Your task to perform on an android device: change your default location settings in chrome Image 0: 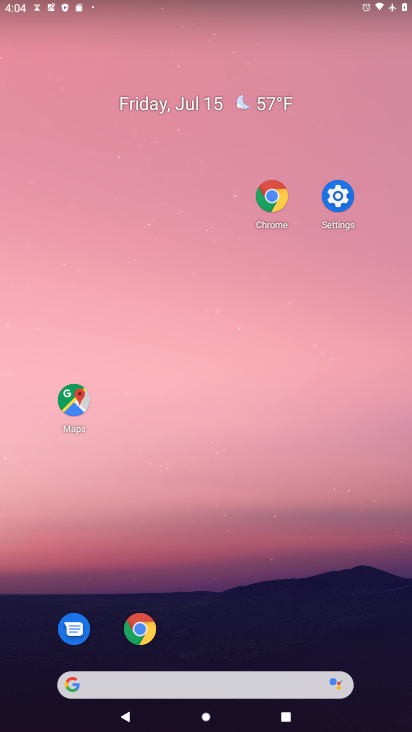
Step 0: click (230, 17)
Your task to perform on an android device: change your default location settings in chrome Image 1: 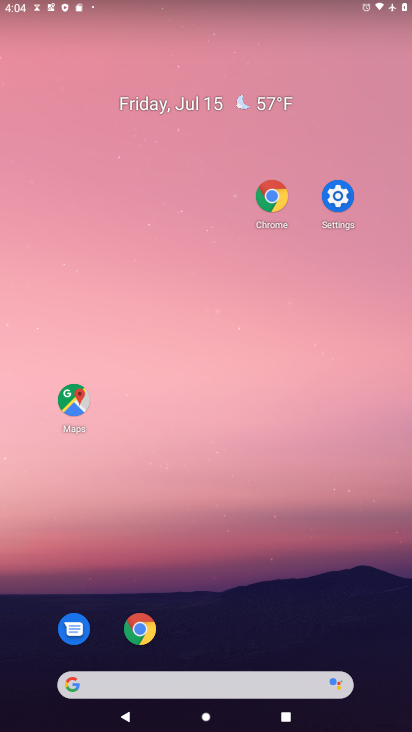
Step 1: click (266, 74)
Your task to perform on an android device: change your default location settings in chrome Image 2: 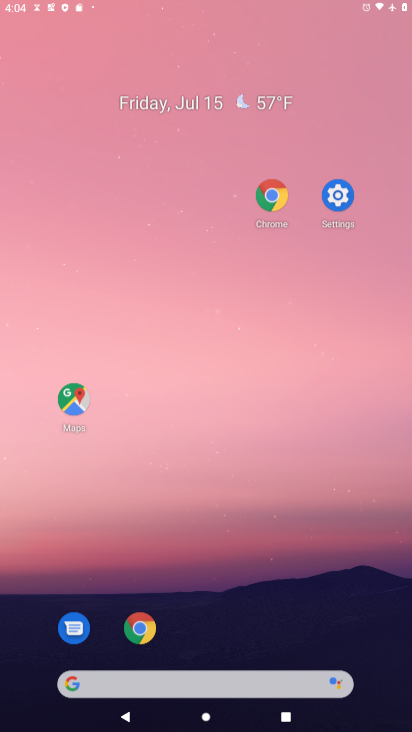
Step 2: click (144, 121)
Your task to perform on an android device: change your default location settings in chrome Image 3: 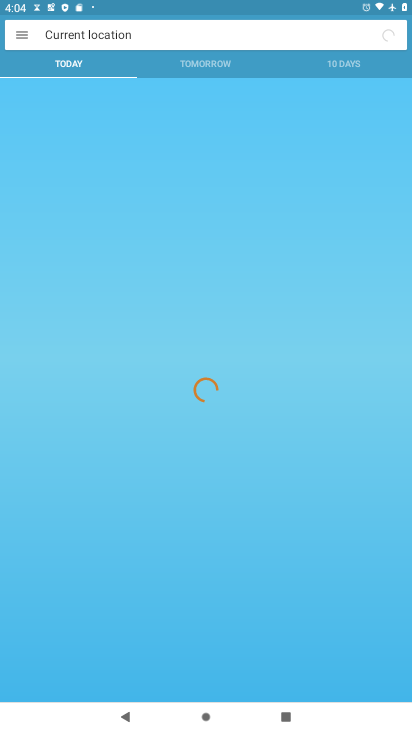
Step 3: drag from (139, 553) to (409, 118)
Your task to perform on an android device: change your default location settings in chrome Image 4: 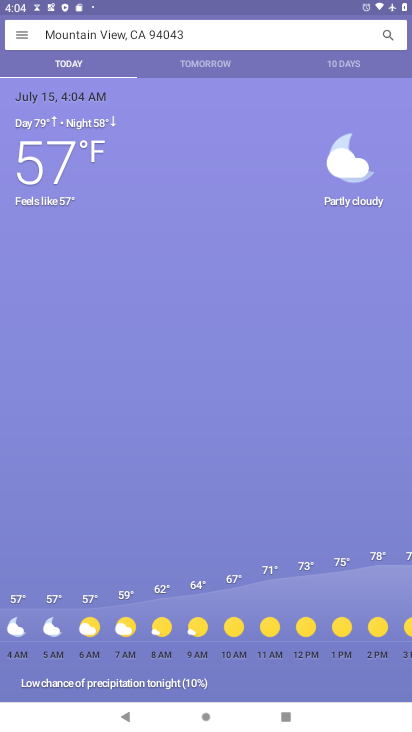
Step 4: drag from (249, 455) to (218, 32)
Your task to perform on an android device: change your default location settings in chrome Image 5: 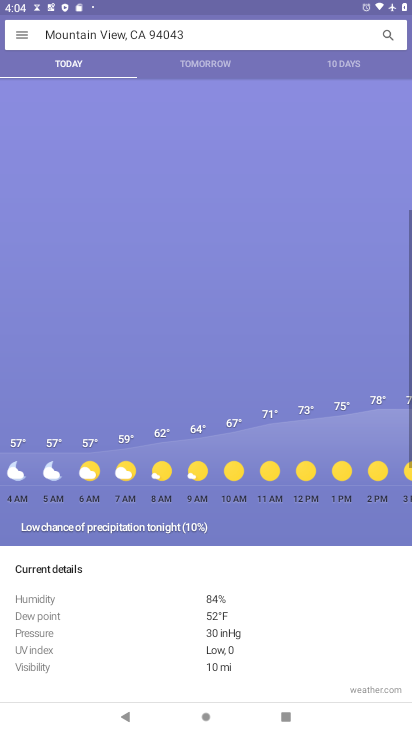
Step 5: drag from (255, 390) to (211, 28)
Your task to perform on an android device: change your default location settings in chrome Image 6: 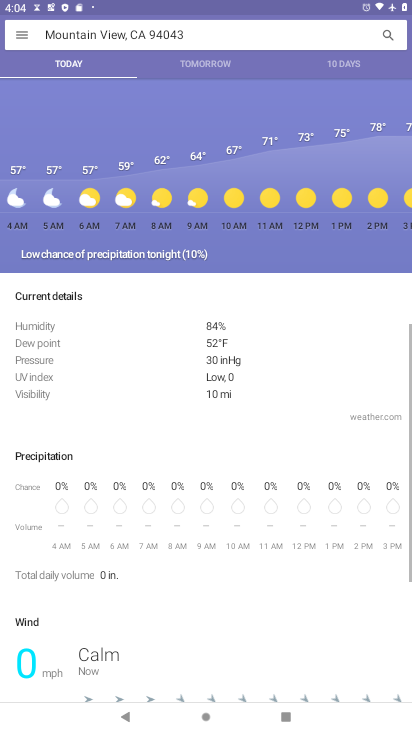
Step 6: drag from (246, 372) to (235, 37)
Your task to perform on an android device: change your default location settings in chrome Image 7: 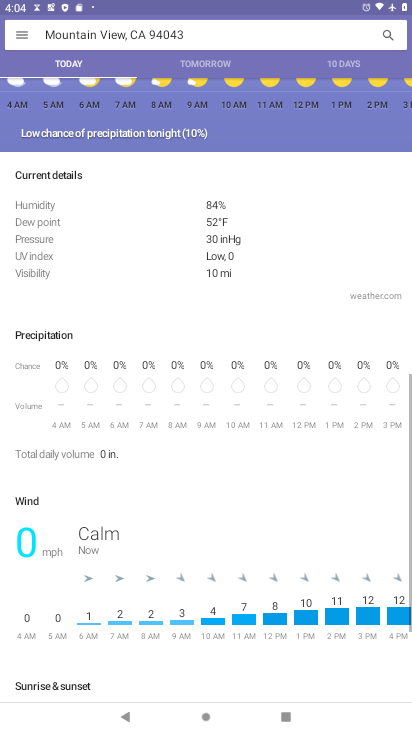
Step 7: drag from (242, 445) to (256, 157)
Your task to perform on an android device: change your default location settings in chrome Image 8: 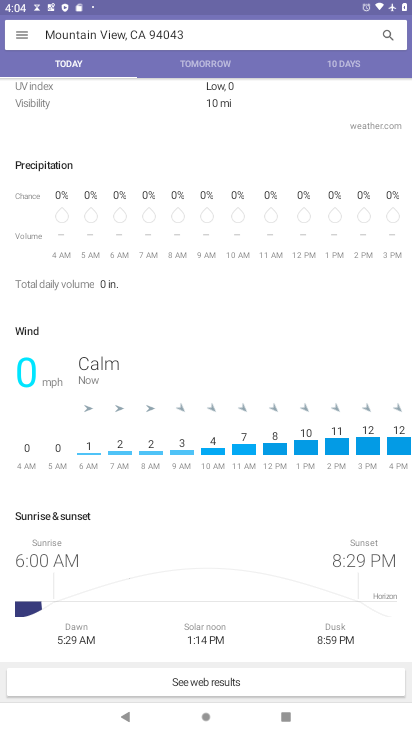
Step 8: press back button
Your task to perform on an android device: change your default location settings in chrome Image 9: 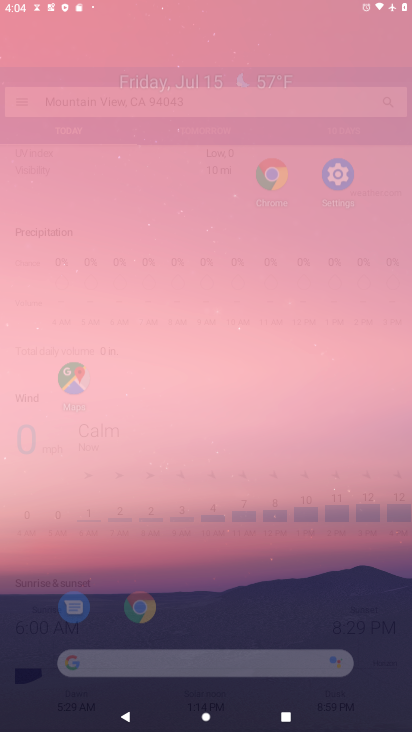
Step 9: drag from (174, 516) to (151, 56)
Your task to perform on an android device: change your default location settings in chrome Image 10: 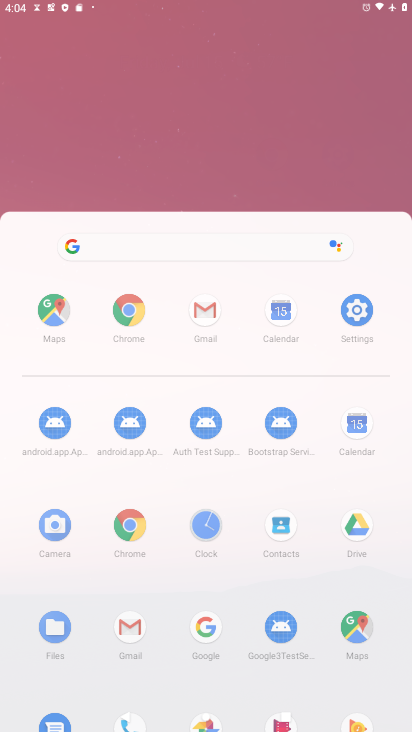
Step 10: drag from (222, 394) to (211, 155)
Your task to perform on an android device: change your default location settings in chrome Image 11: 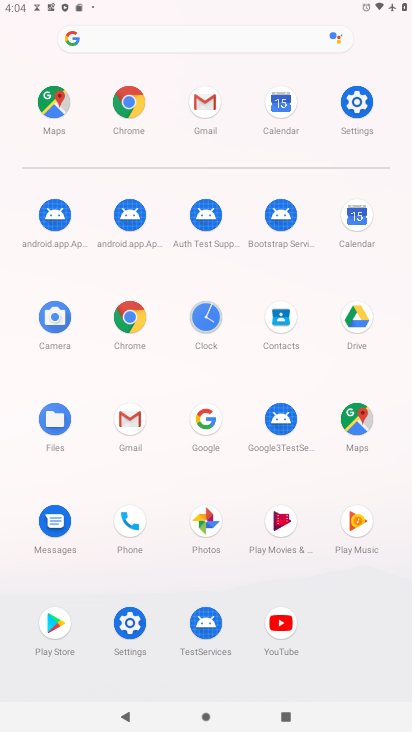
Step 11: click (134, 115)
Your task to perform on an android device: change your default location settings in chrome Image 12: 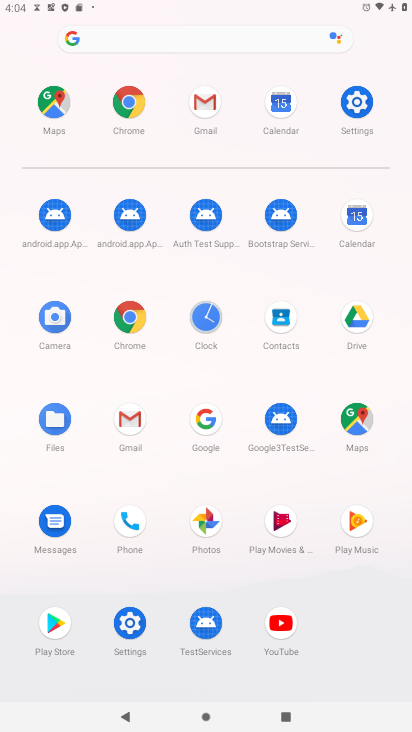
Step 12: click (115, 105)
Your task to perform on an android device: change your default location settings in chrome Image 13: 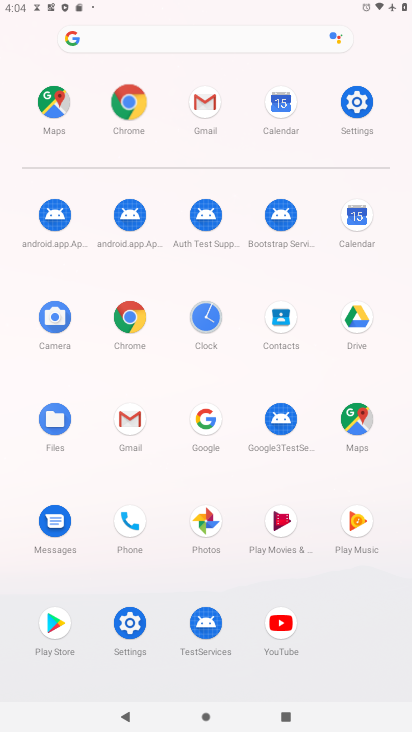
Step 13: click (131, 105)
Your task to perform on an android device: change your default location settings in chrome Image 14: 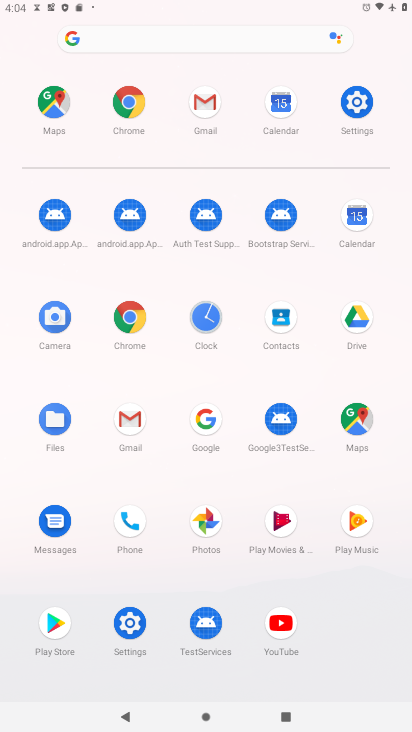
Step 14: click (134, 106)
Your task to perform on an android device: change your default location settings in chrome Image 15: 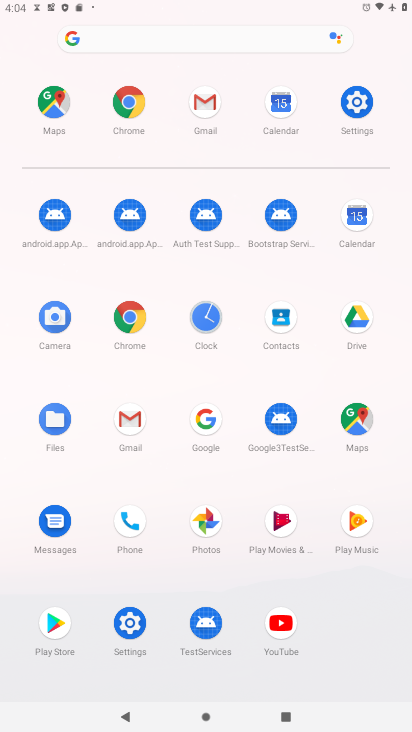
Step 15: click (134, 106)
Your task to perform on an android device: change your default location settings in chrome Image 16: 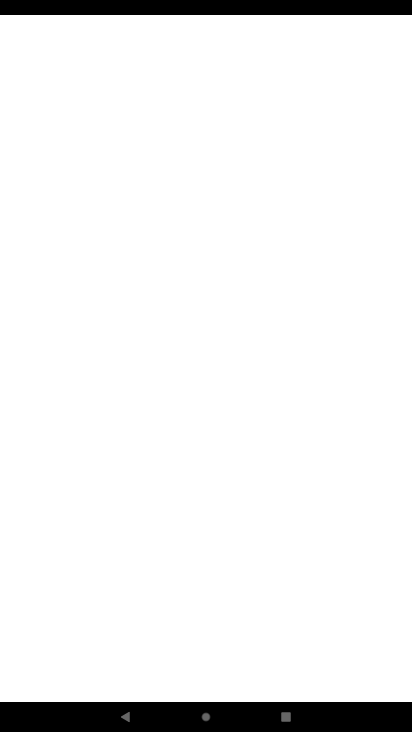
Step 16: click (135, 106)
Your task to perform on an android device: change your default location settings in chrome Image 17: 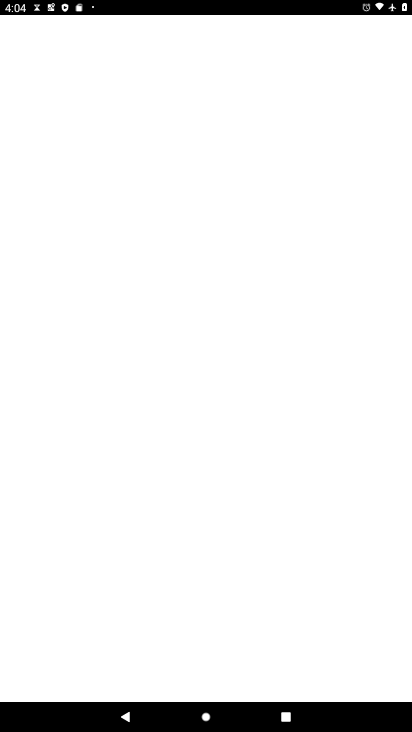
Step 17: click (135, 106)
Your task to perform on an android device: change your default location settings in chrome Image 18: 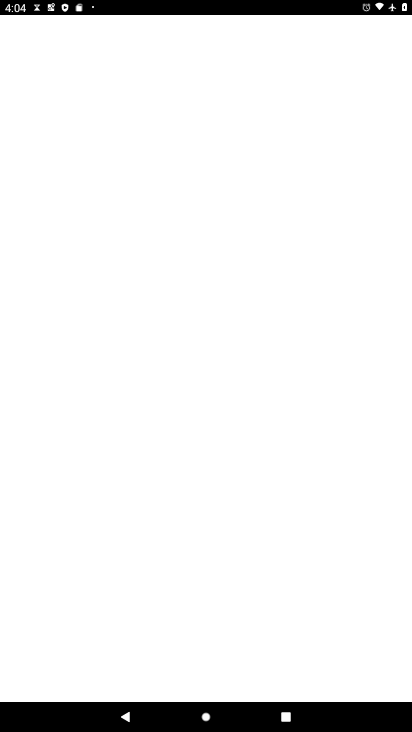
Step 18: click (136, 106)
Your task to perform on an android device: change your default location settings in chrome Image 19: 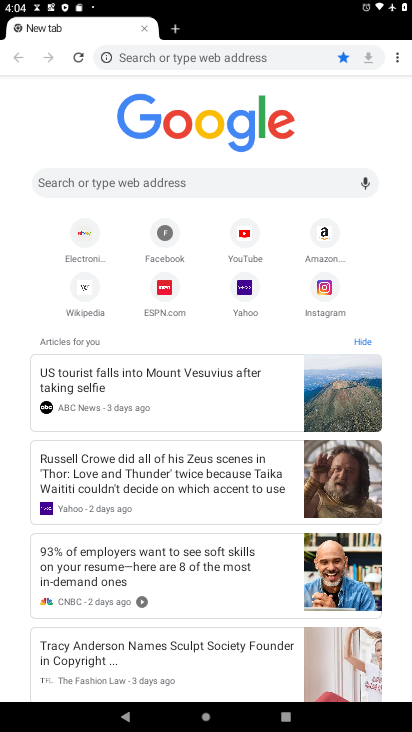
Step 19: drag from (396, 58) to (273, 265)
Your task to perform on an android device: change your default location settings in chrome Image 20: 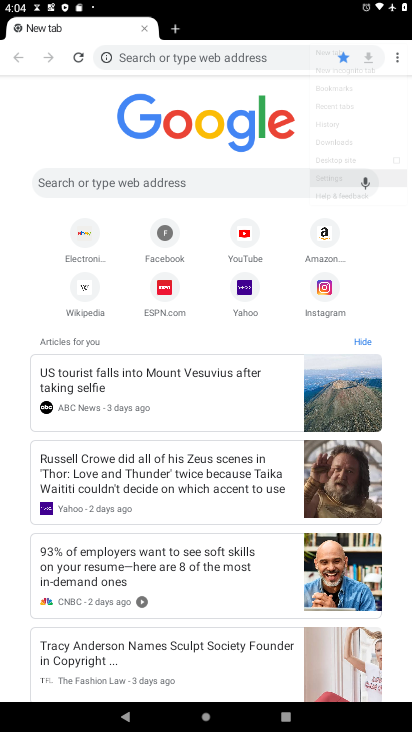
Step 20: click (276, 264)
Your task to perform on an android device: change your default location settings in chrome Image 21: 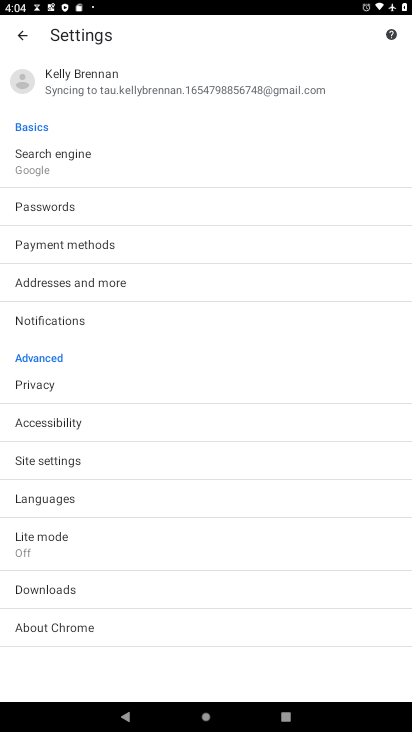
Step 21: drag from (134, 528) to (130, 159)
Your task to perform on an android device: change your default location settings in chrome Image 22: 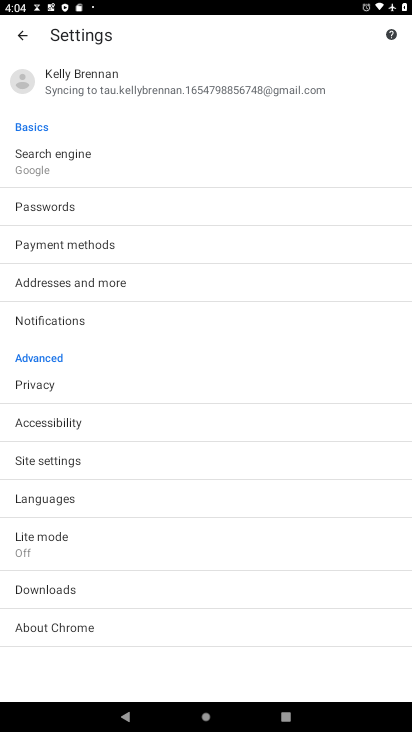
Step 22: drag from (89, 462) to (91, 224)
Your task to perform on an android device: change your default location settings in chrome Image 23: 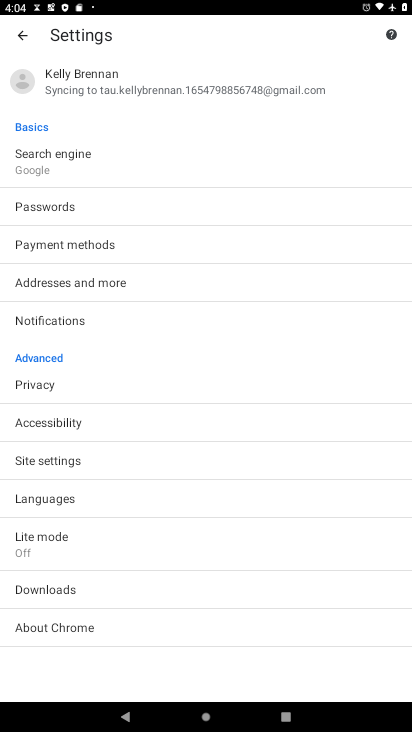
Step 23: drag from (125, 463) to (125, 181)
Your task to perform on an android device: change your default location settings in chrome Image 24: 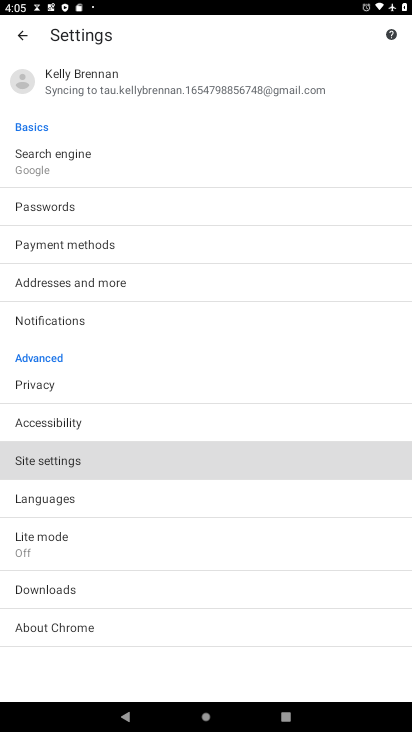
Step 24: drag from (120, 514) to (122, 217)
Your task to perform on an android device: change your default location settings in chrome Image 25: 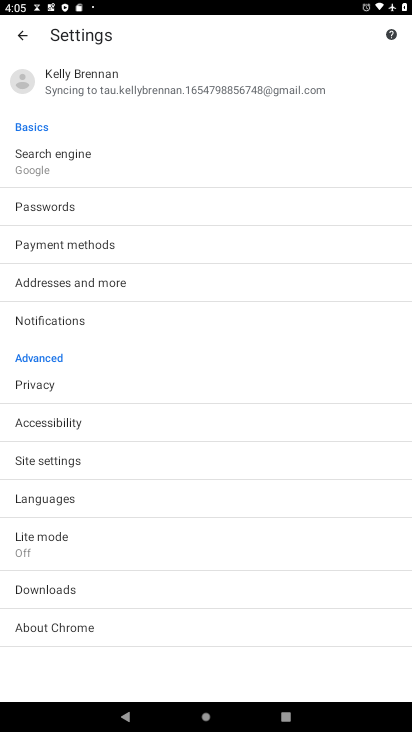
Step 25: drag from (38, 539) to (41, 227)
Your task to perform on an android device: change your default location settings in chrome Image 26: 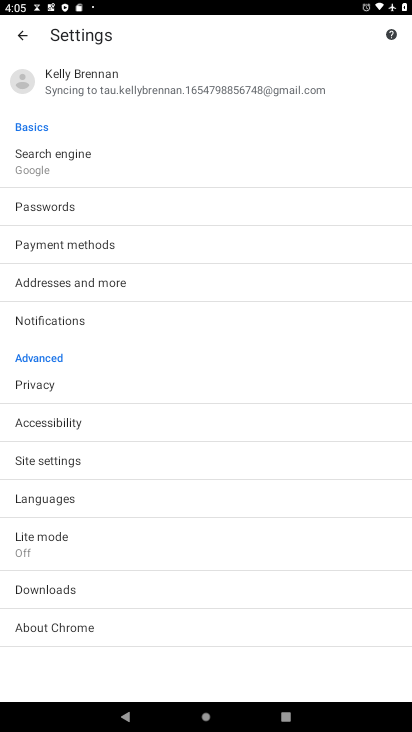
Step 26: drag from (41, 520) to (42, 255)
Your task to perform on an android device: change your default location settings in chrome Image 27: 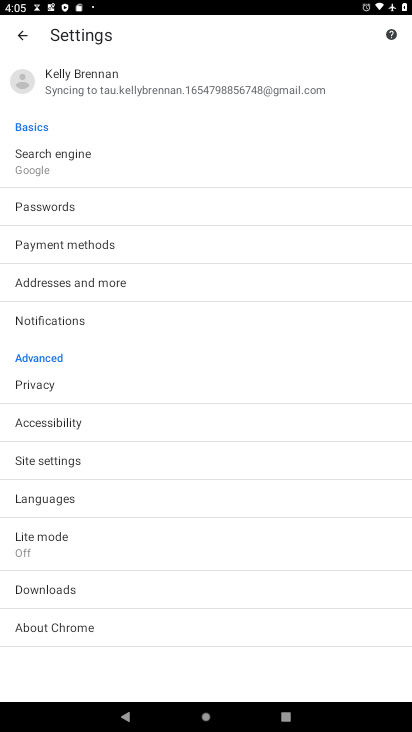
Step 27: drag from (70, 541) to (71, 265)
Your task to perform on an android device: change your default location settings in chrome Image 28: 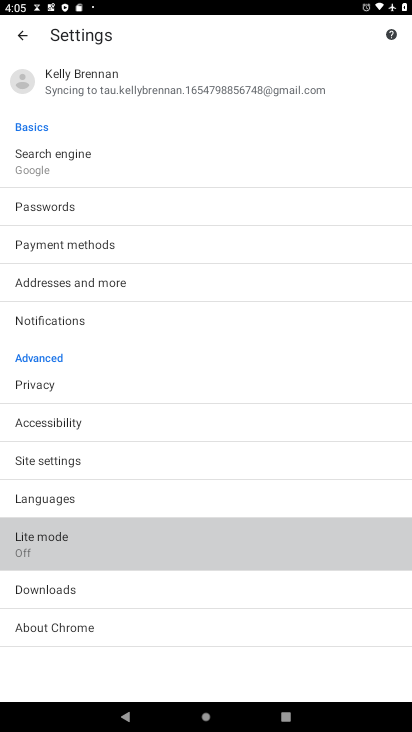
Step 28: drag from (50, 488) to (79, 195)
Your task to perform on an android device: change your default location settings in chrome Image 29: 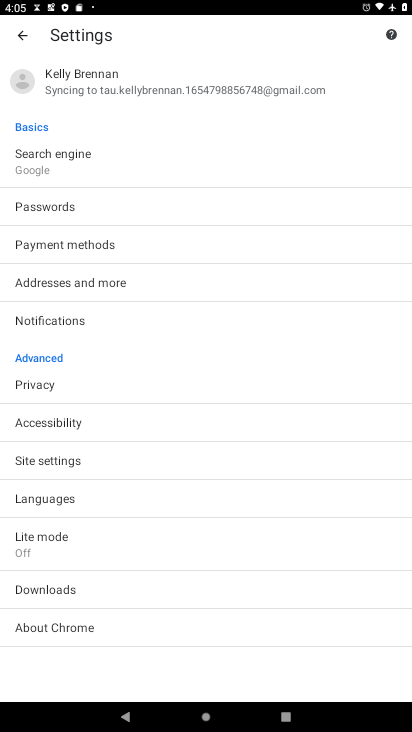
Step 29: drag from (117, 202) to (108, 266)
Your task to perform on an android device: change your default location settings in chrome Image 30: 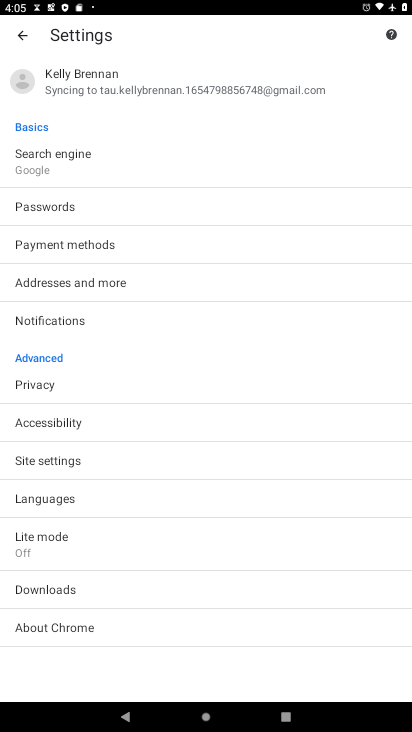
Step 30: drag from (111, 438) to (99, 149)
Your task to perform on an android device: change your default location settings in chrome Image 31: 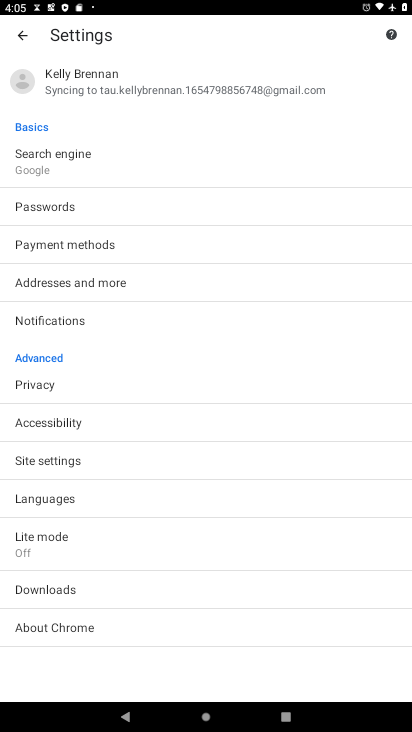
Step 31: drag from (74, 407) to (74, 53)
Your task to perform on an android device: change your default location settings in chrome Image 32: 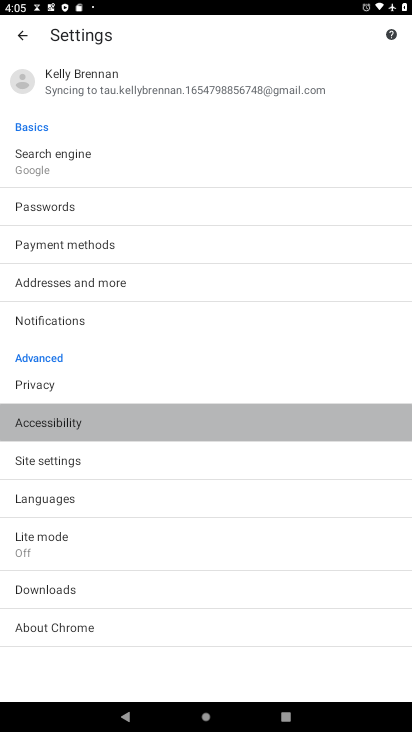
Step 32: drag from (73, 462) to (69, 170)
Your task to perform on an android device: change your default location settings in chrome Image 33: 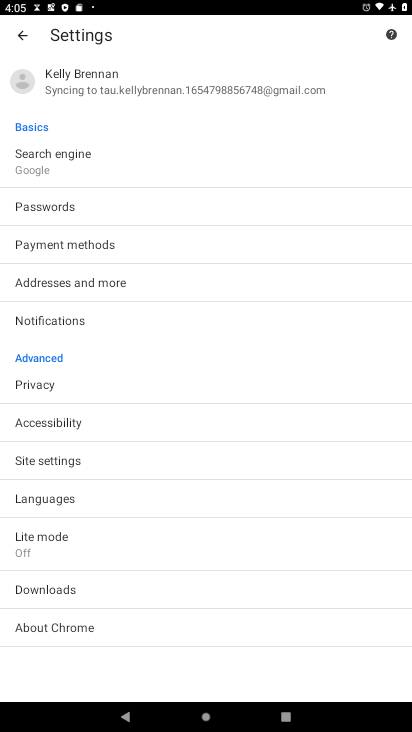
Step 33: drag from (71, 419) to (101, 197)
Your task to perform on an android device: change your default location settings in chrome Image 34: 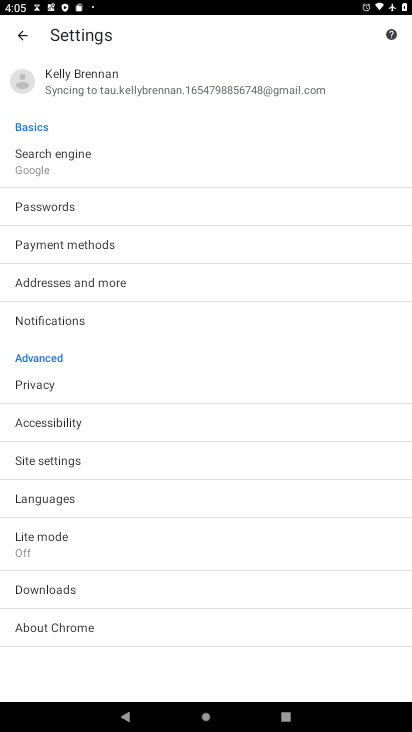
Step 34: drag from (49, 486) to (51, 389)
Your task to perform on an android device: change your default location settings in chrome Image 35: 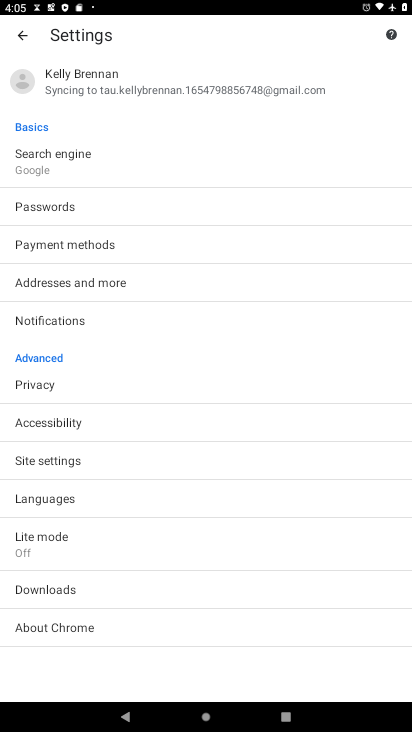
Step 35: drag from (43, 448) to (86, 133)
Your task to perform on an android device: change your default location settings in chrome Image 36: 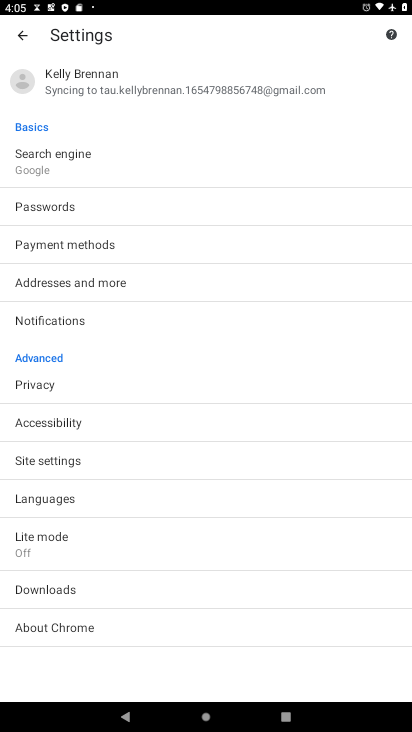
Step 36: drag from (82, 570) to (79, 293)
Your task to perform on an android device: change your default location settings in chrome Image 37: 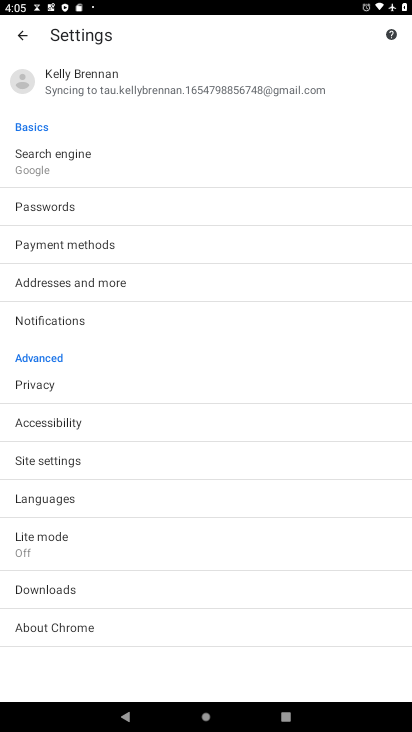
Step 37: drag from (50, 586) to (75, 356)
Your task to perform on an android device: change your default location settings in chrome Image 38: 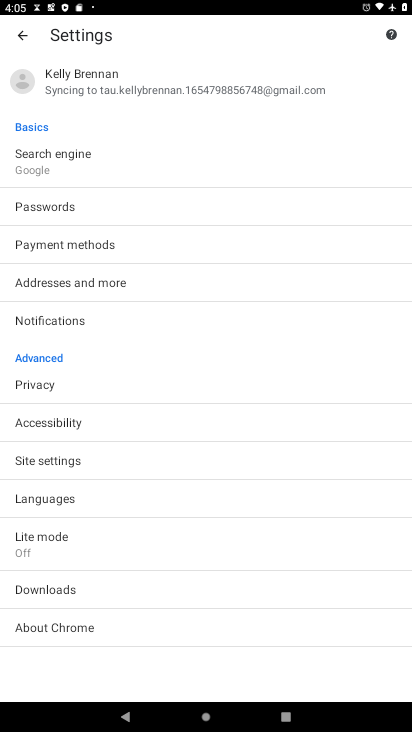
Step 38: drag from (67, 493) to (87, 160)
Your task to perform on an android device: change your default location settings in chrome Image 39: 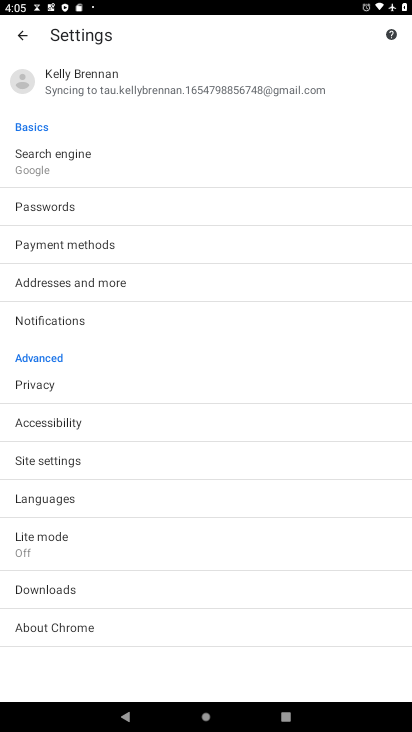
Step 39: click (41, 462)
Your task to perform on an android device: change your default location settings in chrome Image 40: 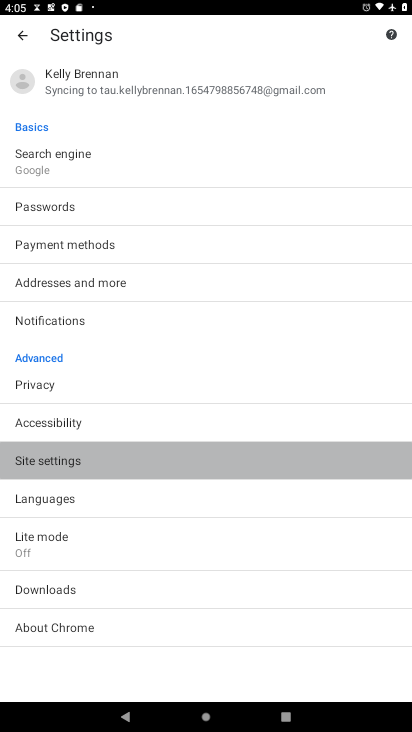
Step 40: click (41, 463)
Your task to perform on an android device: change your default location settings in chrome Image 41: 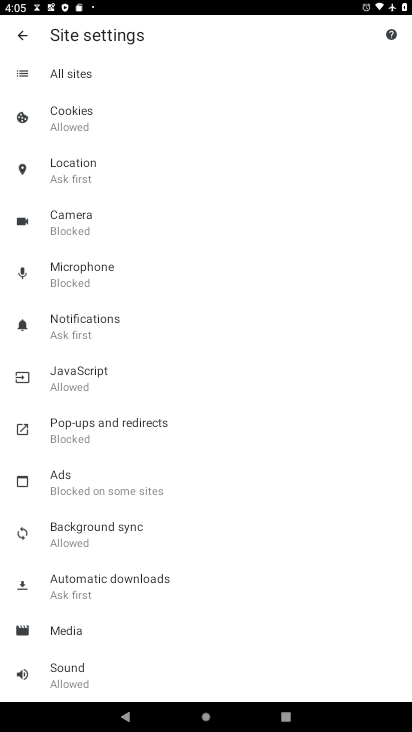
Step 41: click (66, 171)
Your task to perform on an android device: change your default location settings in chrome Image 42: 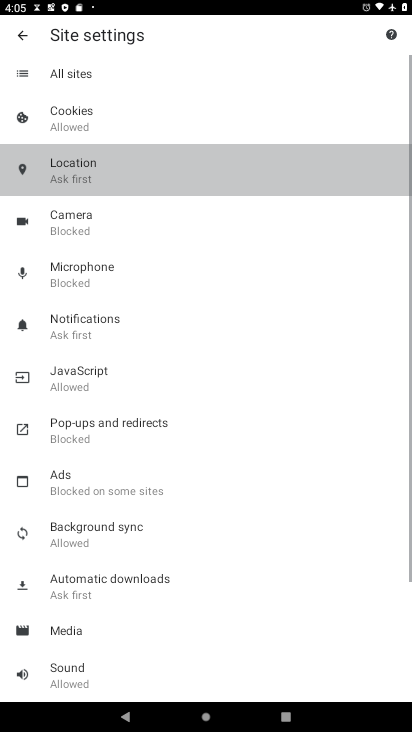
Step 42: click (81, 179)
Your task to perform on an android device: change your default location settings in chrome Image 43: 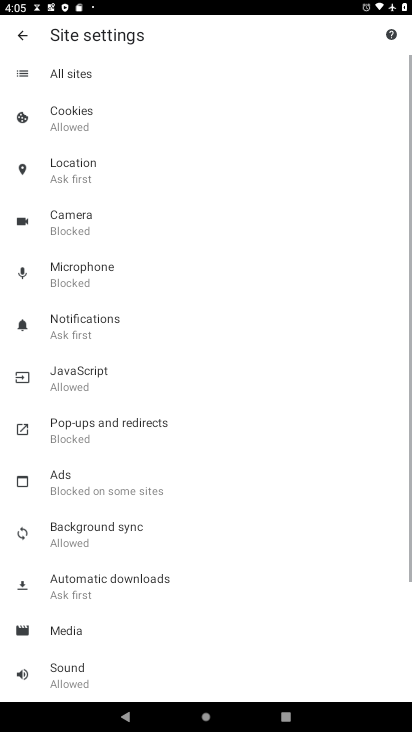
Step 43: click (82, 178)
Your task to perform on an android device: change your default location settings in chrome Image 44: 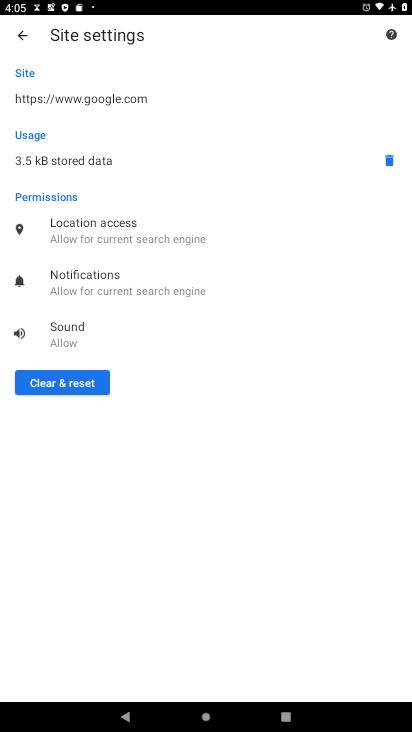
Step 44: task complete